Your task to perform on an android device: Open the calendar and show me this week's events Image 0: 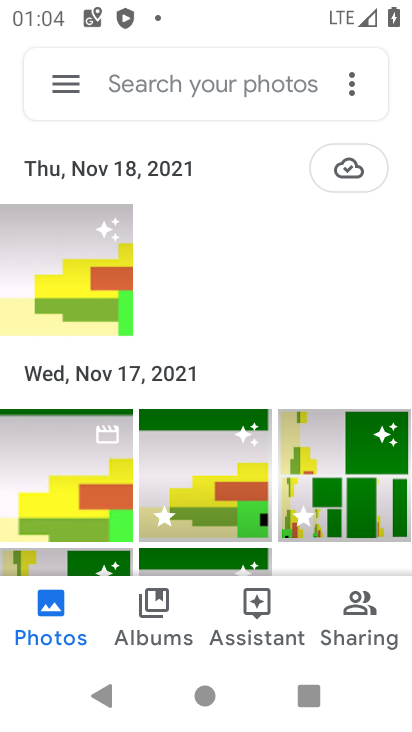
Step 0: press home button
Your task to perform on an android device: Open the calendar and show me this week's events Image 1: 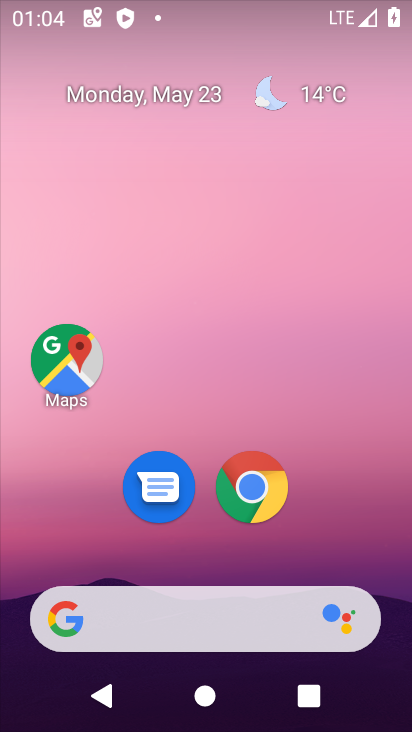
Step 1: drag from (396, 633) to (348, 133)
Your task to perform on an android device: Open the calendar and show me this week's events Image 2: 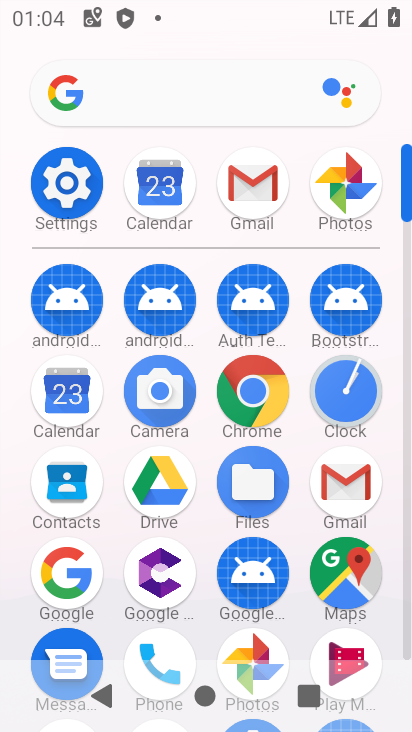
Step 2: click (404, 648)
Your task to perform on an android device: Open the calendar and show me this week's events Image 3: 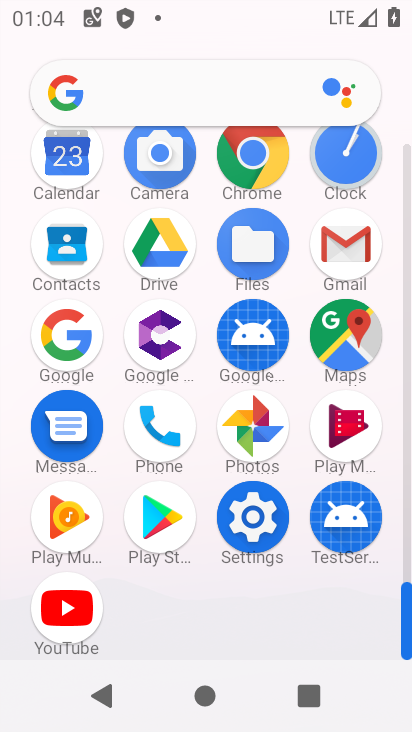
Step 3: click (66, 154)
Your task to perform on an android device: Open the calendar and show me this week's events Image 4: 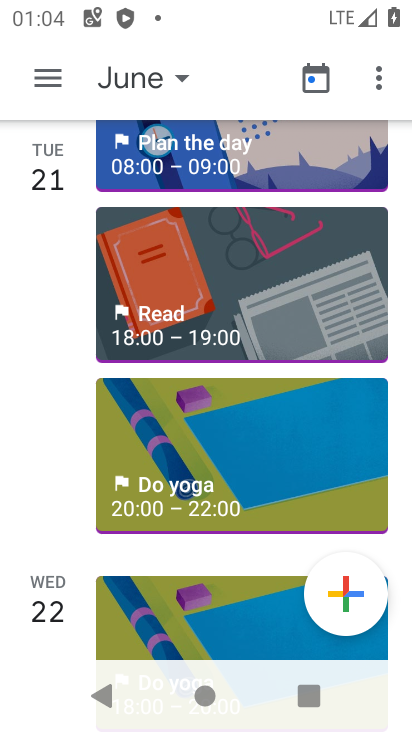
Step 4: click (48, 71)
Your task to perform on an android device: Open the calendar and show me this week's events Image 5: 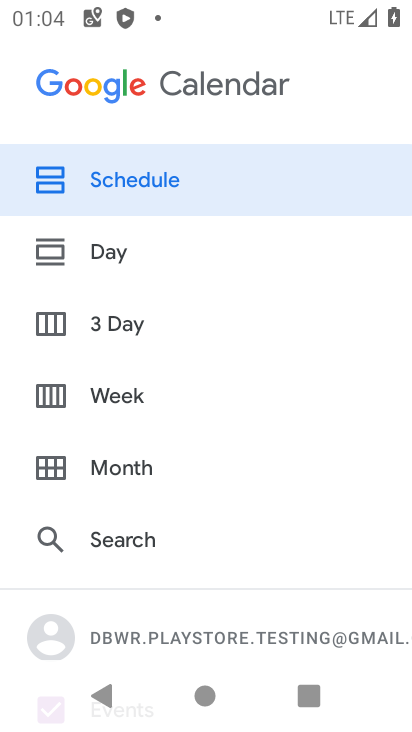
Step 5: click (117, 390)
Your task to perform on an android device: Open the calendar and show me this week's events Image 6: 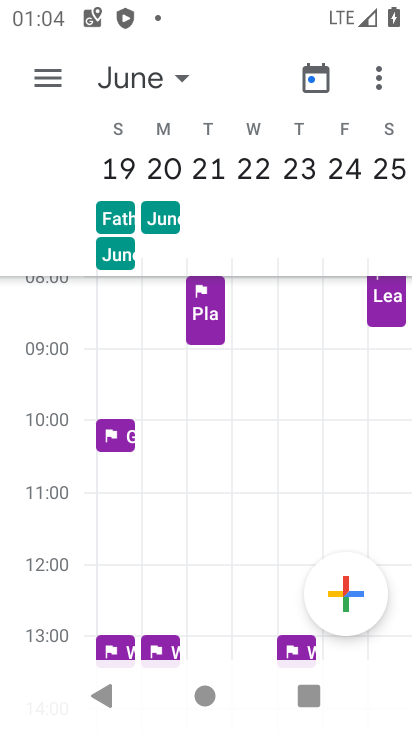
Step 6: click (173, 77)
Your task to perform on an android device: Open the calendar and show me this week's events Image 7: 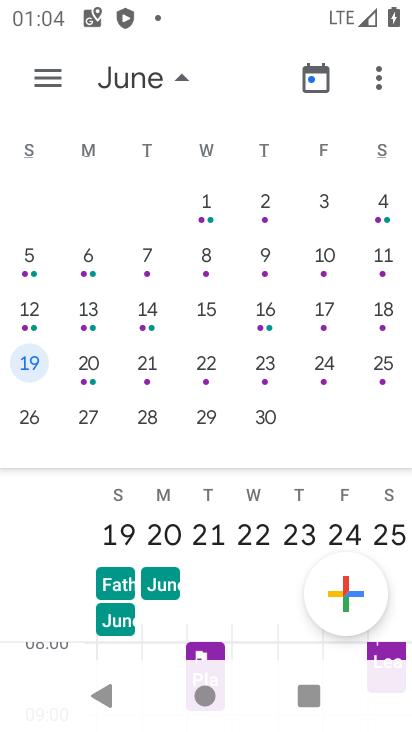
Step 7: drag from (66, 254) to (397, 282)
Your task to perform on an android device: Open the calendar and show me this week's events Image 8: 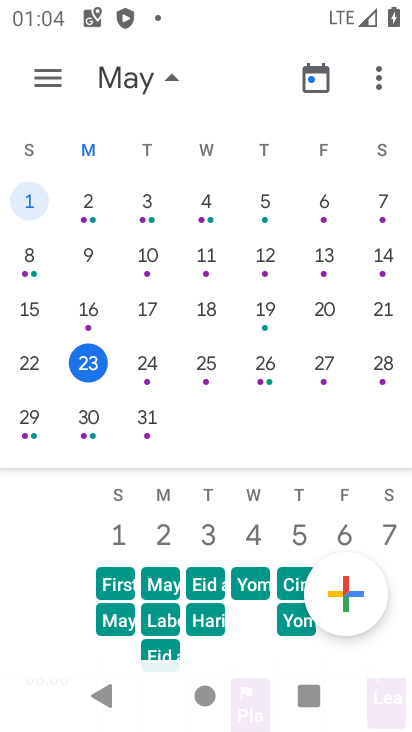
Step 8: click (85, 366)
Your task to perform on an android device: Open the calendar and show me this week's events Image 9: 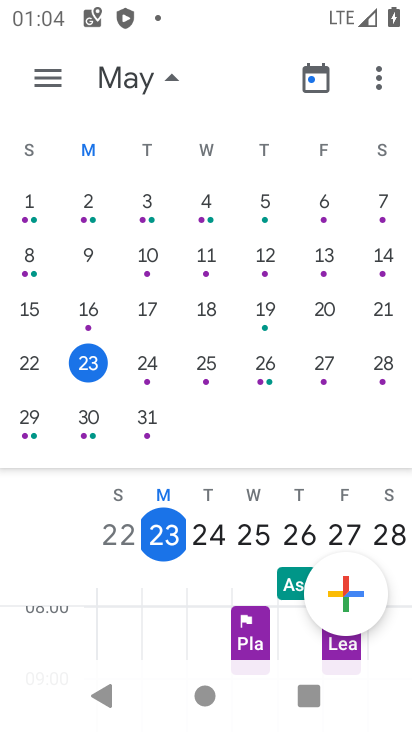
Step 9: task complete